Your task to perform on an android device: add a contact Image 0: 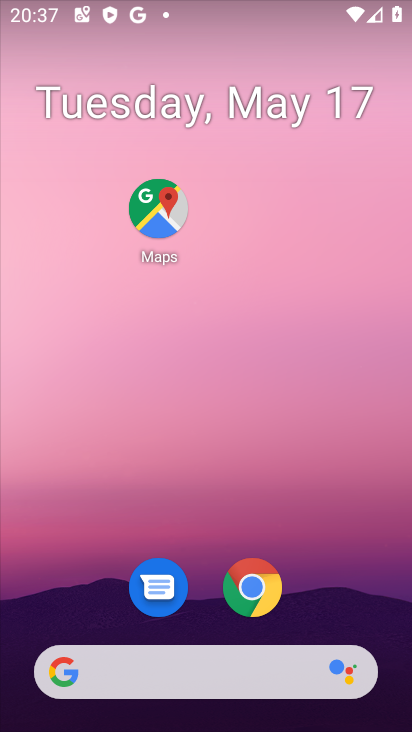
Step 0: drag from (0, 713) to (247, 323)
Your task to perform on an android device: add a contact Image 1: 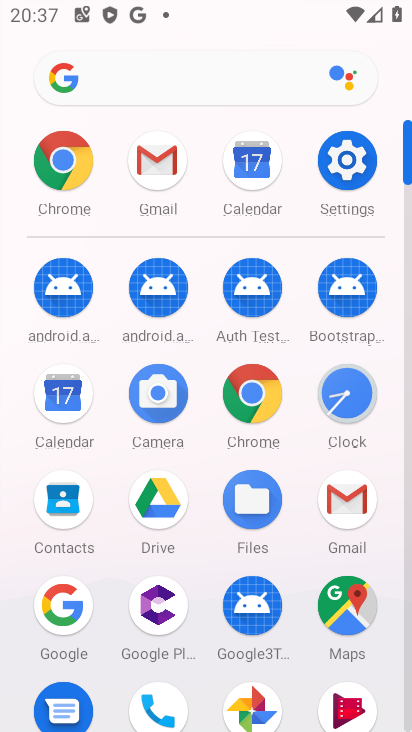
Step 1: drag from (56, 415) to (171, 255)
Your task to perform on an android device: add a contact Image 2: 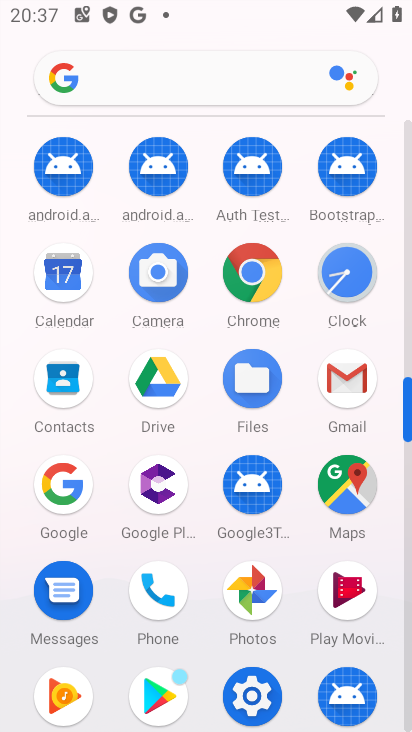
Step 2: click (143, 600)
Your task to perform on an android device: add a contact Image 3: 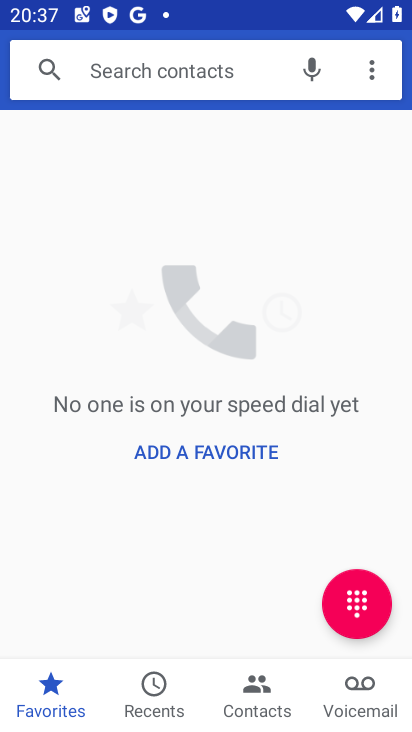
Step 3: click (243, 695)
Your task to perform on an android device: add a contact Image 4: 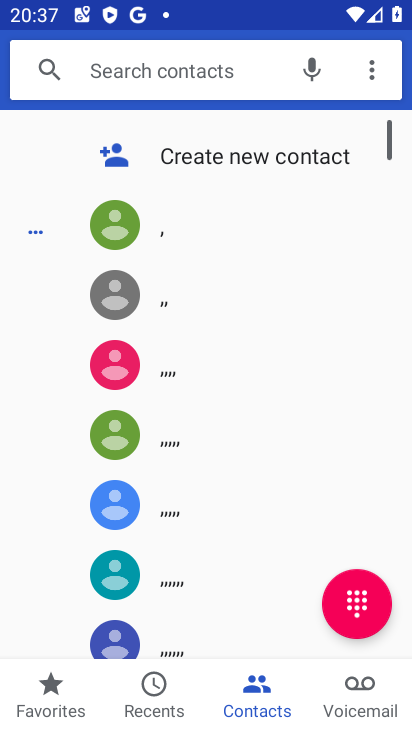
Step 4: click (198, 163)
Your task to perform on an android device: add a contact Image 5: 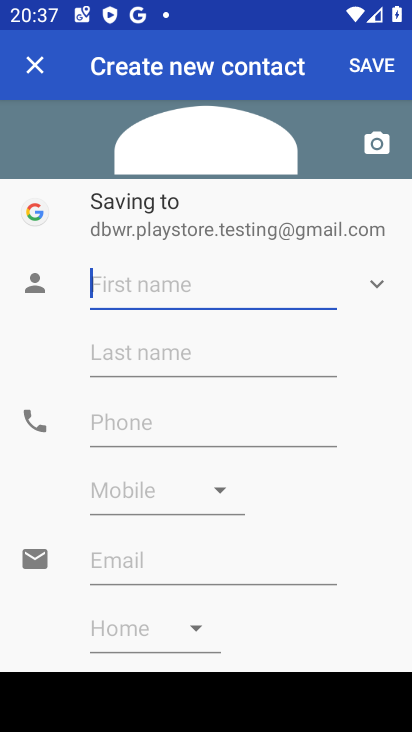
Step 5: click (209, 289)
Your task to perform on an android device: add a contact Image 6: 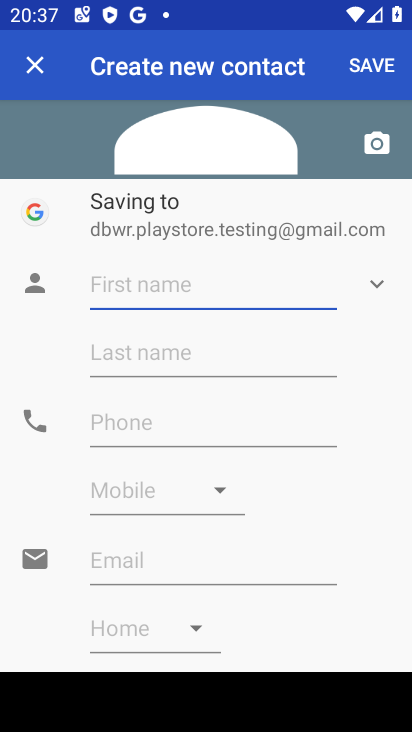
Step 6: type "cdftgfd"
Your task to perform on an android device: add a contact Image 7: 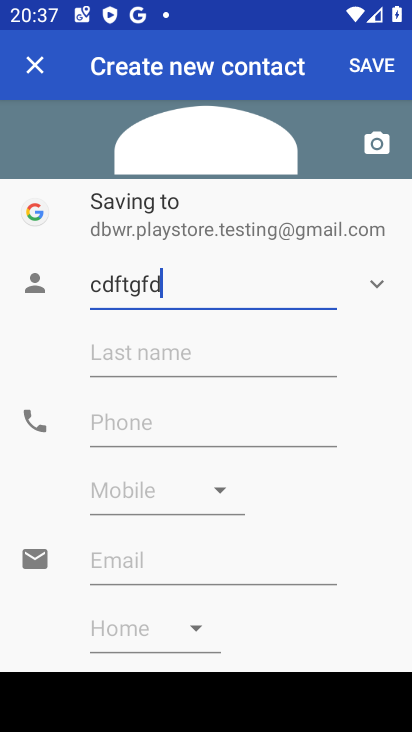
Step 7: type ""
Your task to perform on an android device: add a contact Image 8: 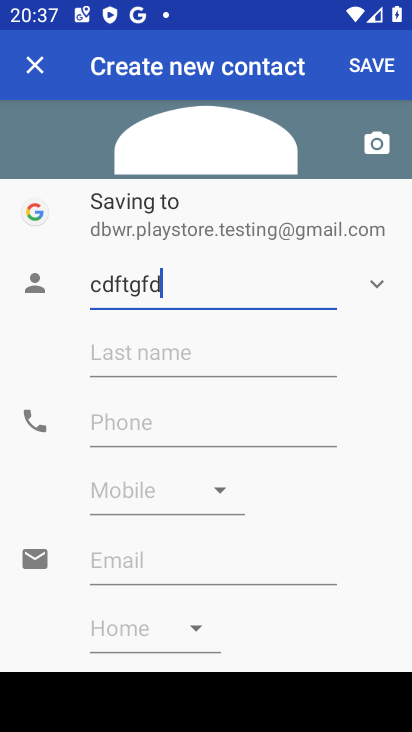
Step 8: click (350, 64)
Your task to perform on an android device: add a contact Image 9: 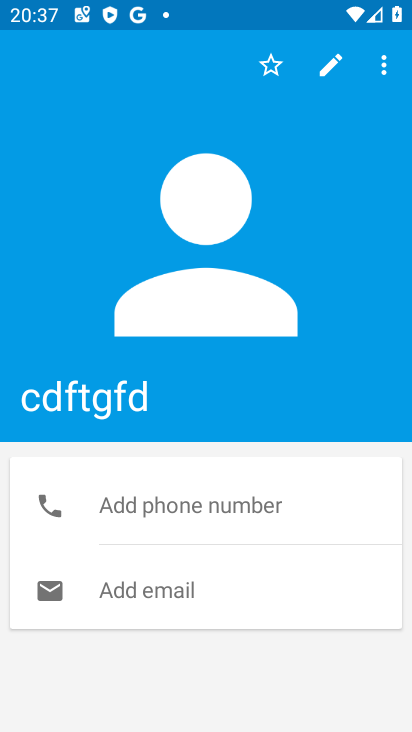
Step 9: task complete